Your task to perform on an android device: turn notification dots off Image 0: 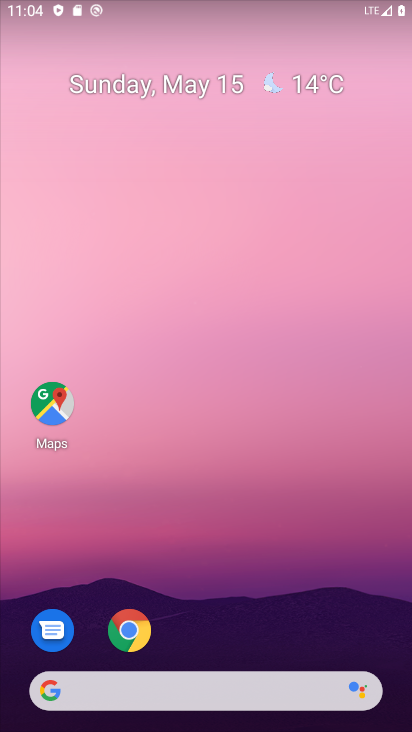
Step 0: drag from (32, 655) to (368, 189)
Your task to perform on an android device: turn notification dots off Image 1: 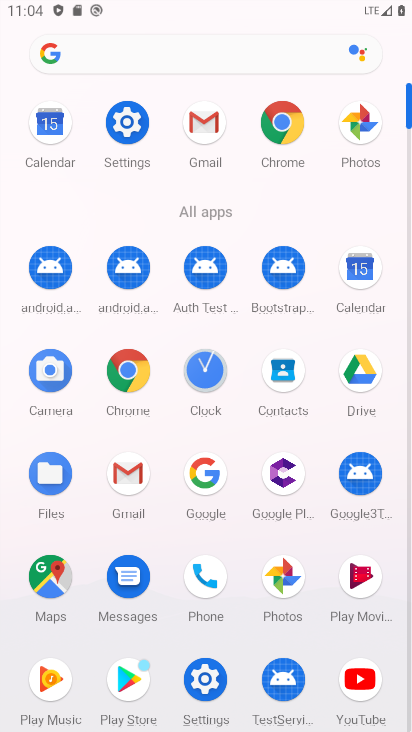
Step 1: click (133, 119)
Your task to perform on an android device: turn notification dots off Image 2: 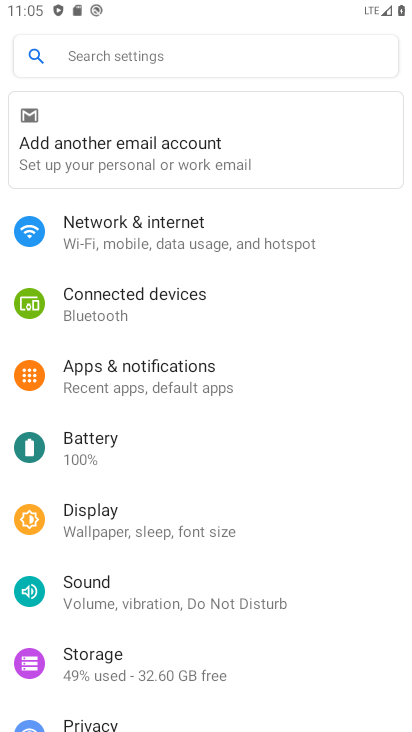
Step 2: click (165, 373)
Your task to perform on an android device: turn notification dots off Image 3: 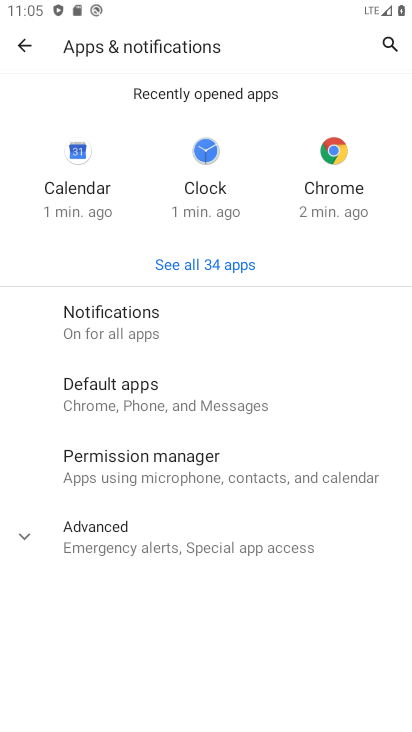
Step 3: click (105, 309)
Your task to perform on an android device: turn notification dots off Image 4: 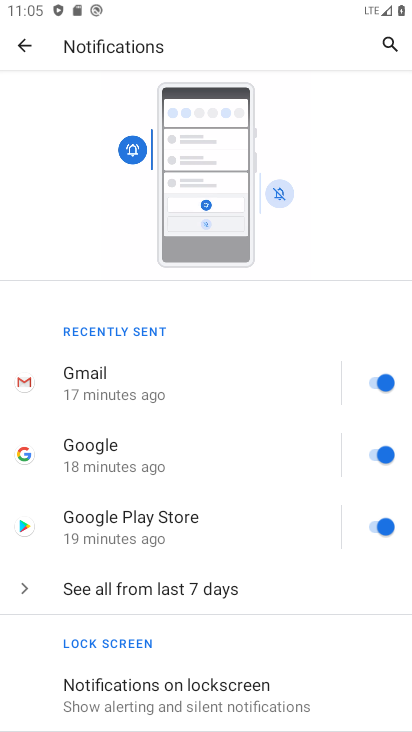
Step 4: drag from (138, 691) to (297, 176)
Your task to perform on an android device: turn notification dots off Image 5: 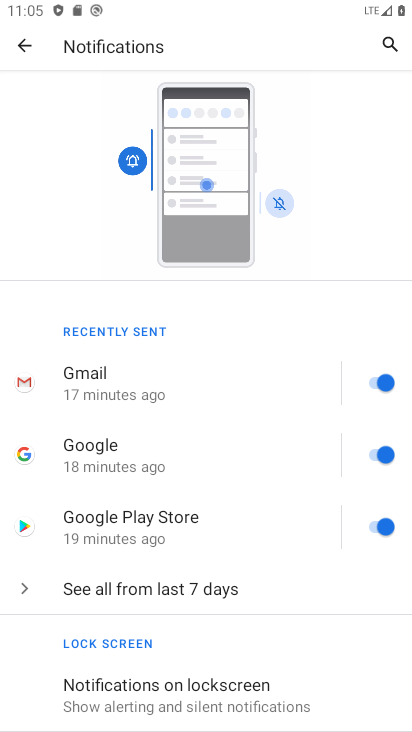
Step 5: drag from (22, 648) to (283, 157)
Your task to perform on an android device: turn notification dots off Image 6: 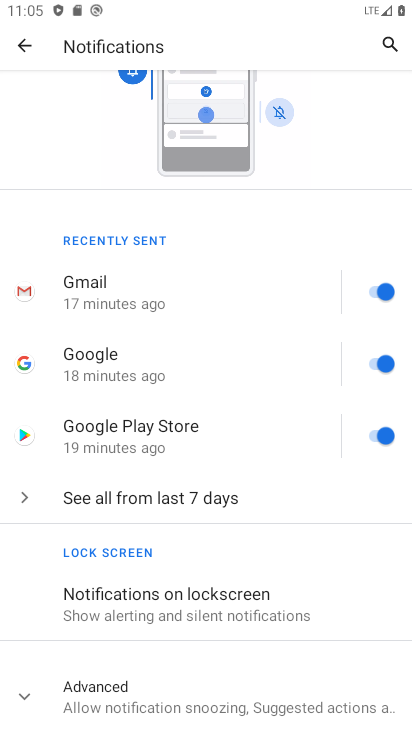
Step 6: click (168, 691)
Your task to perform on an android device: turn notification dots off Image 7: 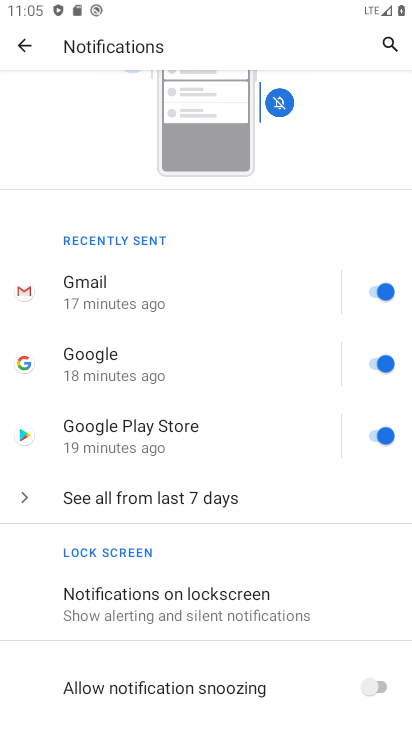
Step 7: drag from (35, 650) to (235, 162)
Your task to perform on an android device: turn notification dots off Image 8: 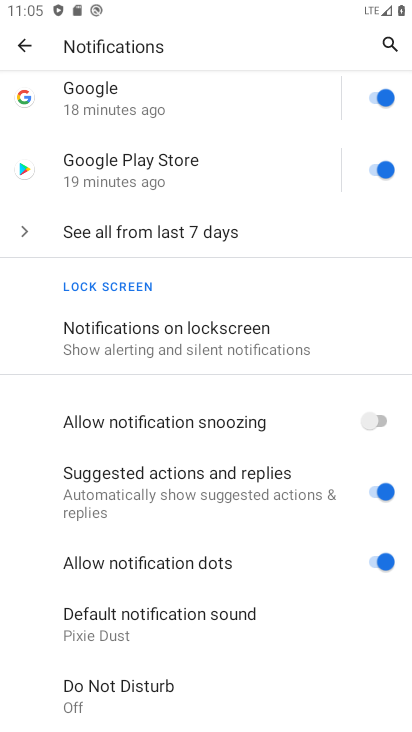
Step 8: click (389, 564)
Your task to perform on an android device: turn notification dots off Image 9: 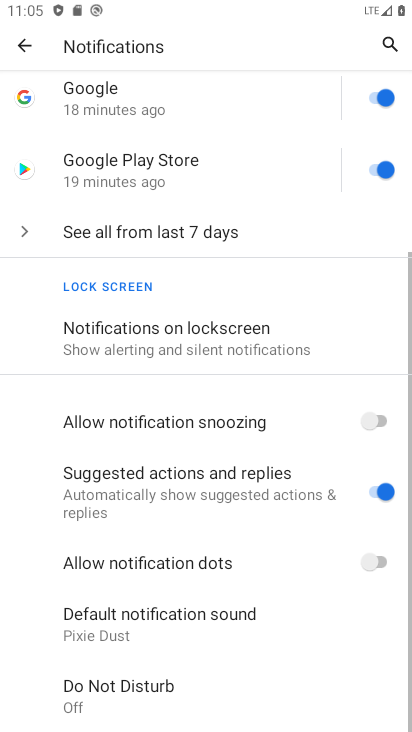
Step 9: task complete